Your task to perform on an android device: empty trash in the gmail app Image 0: 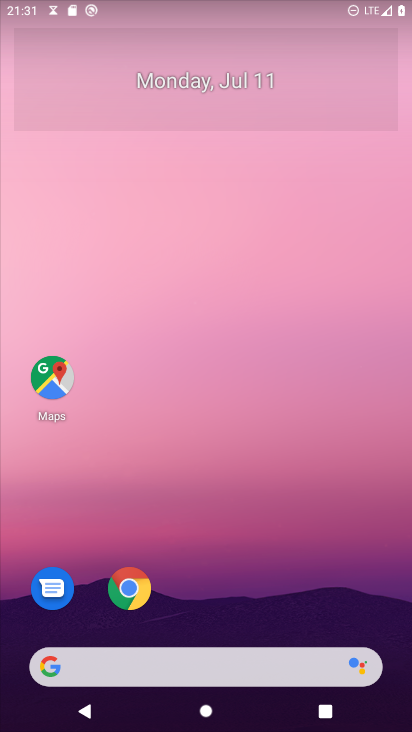
Step 0: press home button
Your task to perform on an android device: empty trash in the gmail app Image 1: 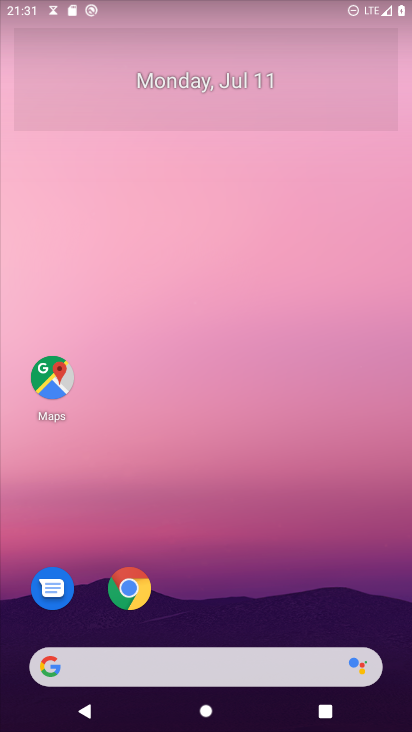
Step 1: drag from (243, 639) to (291, 65)
Your task to perform on an android device: empty trash in the gmail app Image 2: 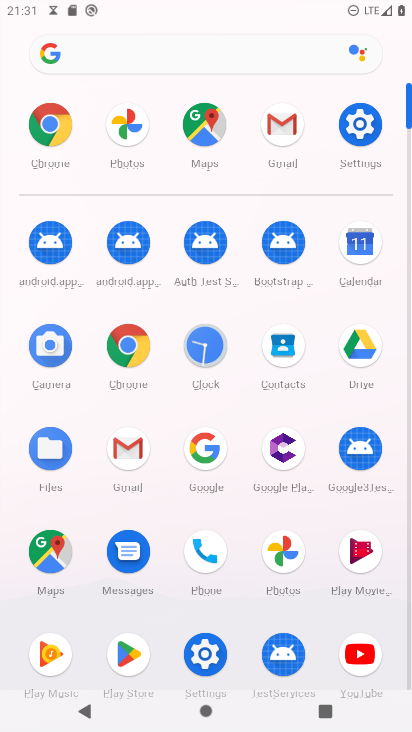
Step 2: click (285, 126)
Your task to perform on an android device: empty trash in the gmail app Image 3: 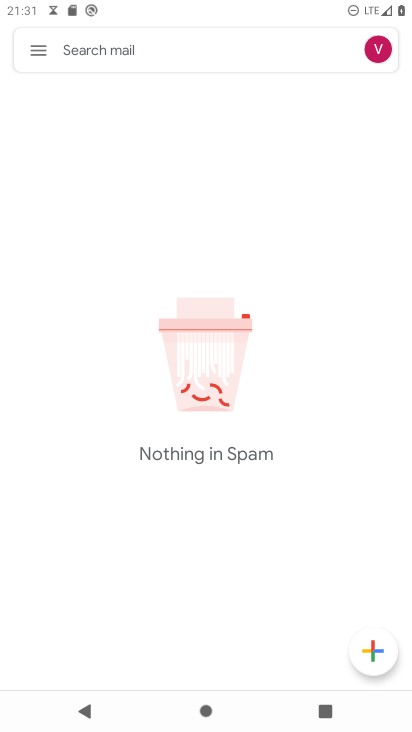
Step 3: click (32, 41)
Your task to perform on an android device: empty trash in the gmail app Image 4: 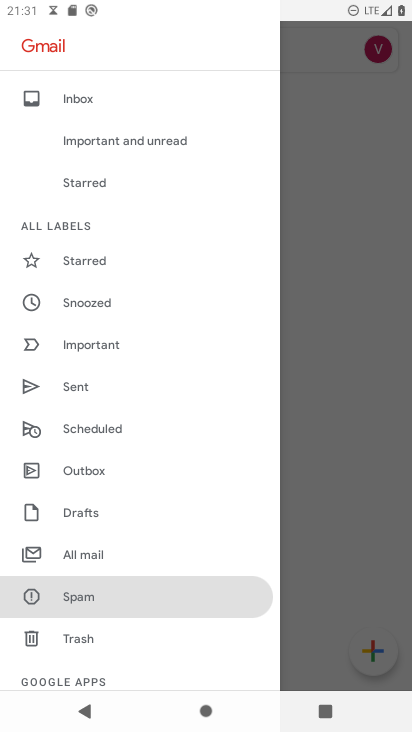
Step 4: click (91, 634)
Your task to perform on an android device: empty trash in the gmail app Image 5: 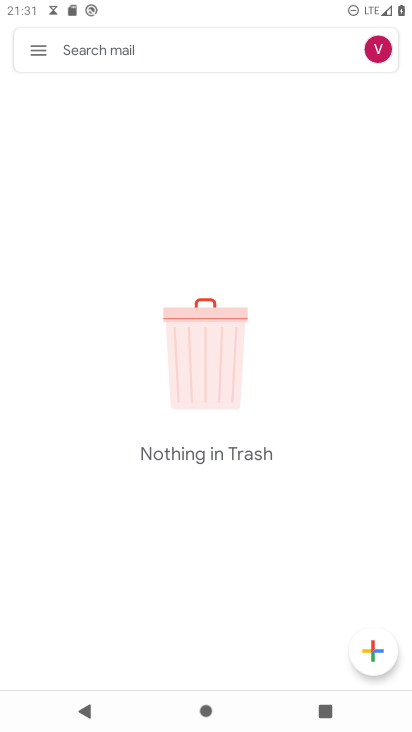
Step 5: task complete